Your task to perform on an android device: Open calendar and show me the third week of next month Image 0: 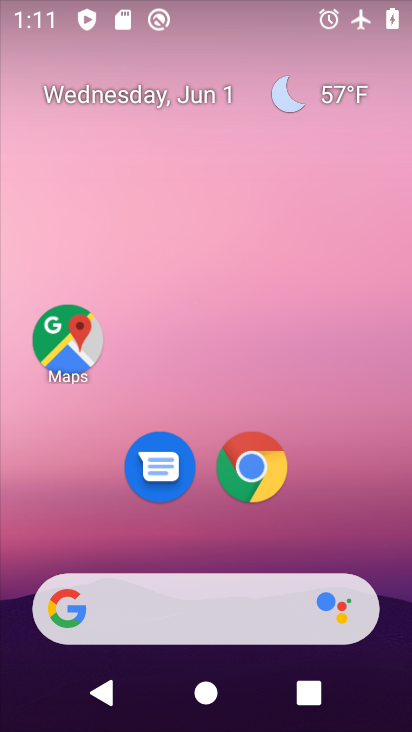
Step 0: drag from (362, 503) to (353, 122)
Your task to perform on an android device: Open calendar and show me the third week of next month Image 1: 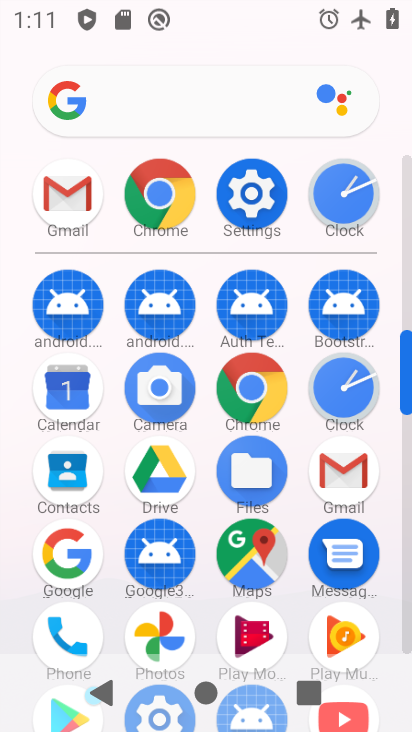
Step 1: click (68, 398)
Your task to perform on an android device: Open calendar and show me the third week of next month Image 2: 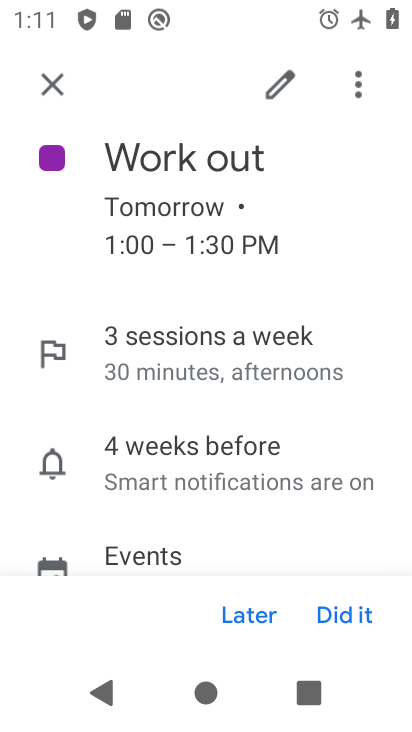
Step 2: click (51, 84)
Your task to perform on an android device: Open calendar and show me the third week of next month Image 3: 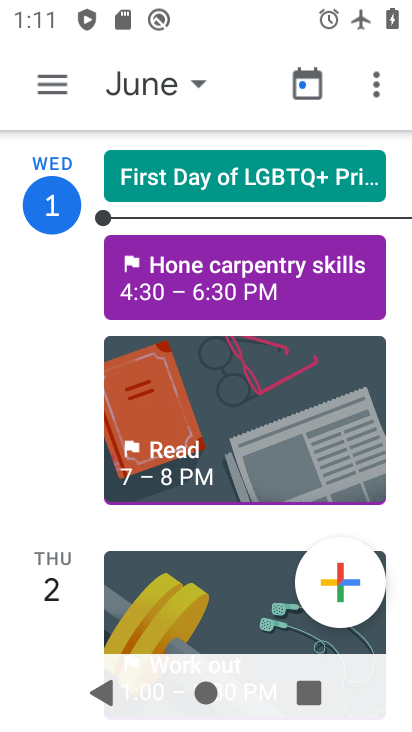
Step 3: click (198, 84)
Your task to perform on an android device: Open calendar and show me the third week of next month Image 4: 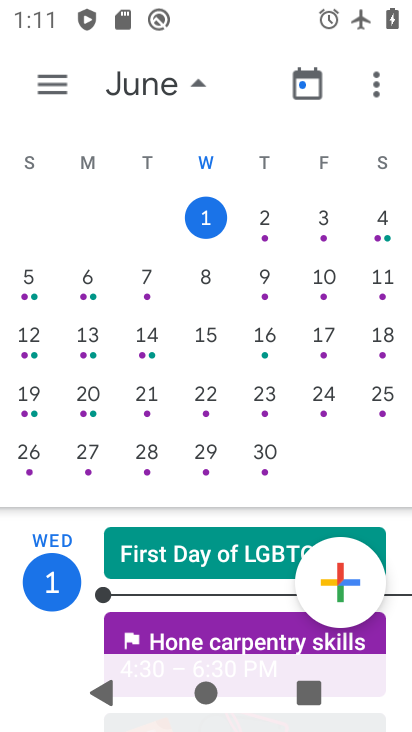
Step 4: drag from (344, 199) to (12, 183)
Your task to perform on an android device: Open calendar and show me the third week of next month Image 5: 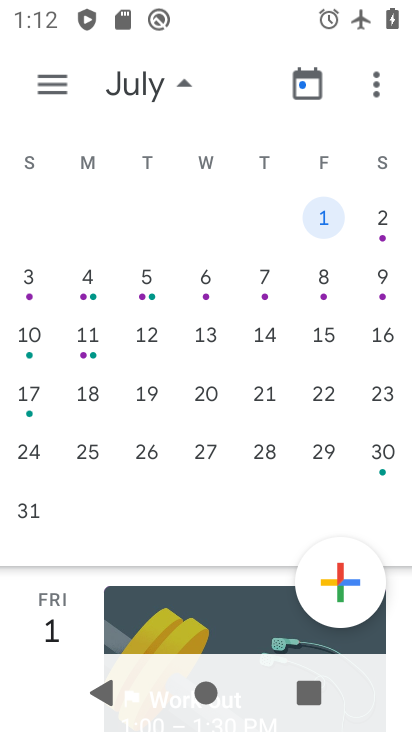
Step 5: click (93, 339)
Your task to perform on an android device: Open calendar and show me the third week of next month Image 6: 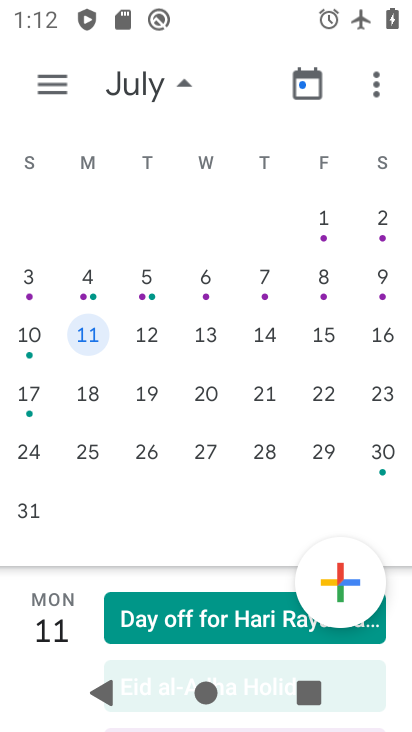
Step 6: task complete